Your task to perform on an android device: See recent photos Image 0: 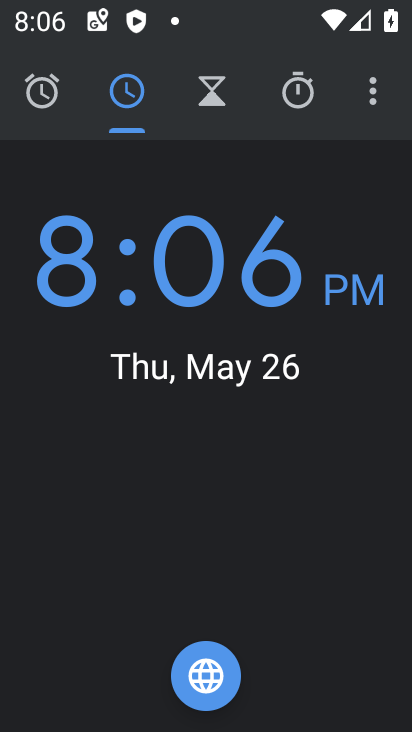
Step 0: press home button
Your task to perform on an android device: See recent photos Image 1: 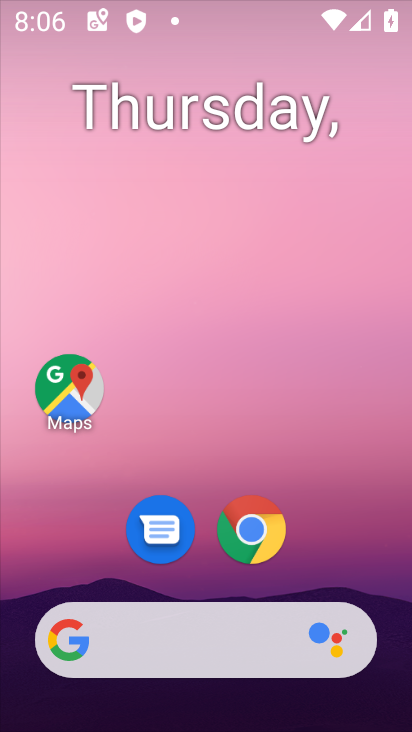
Step 1: drag from (223, 716) to (200, 103)
Your task to perform on an android device: See recent photos Image 2: 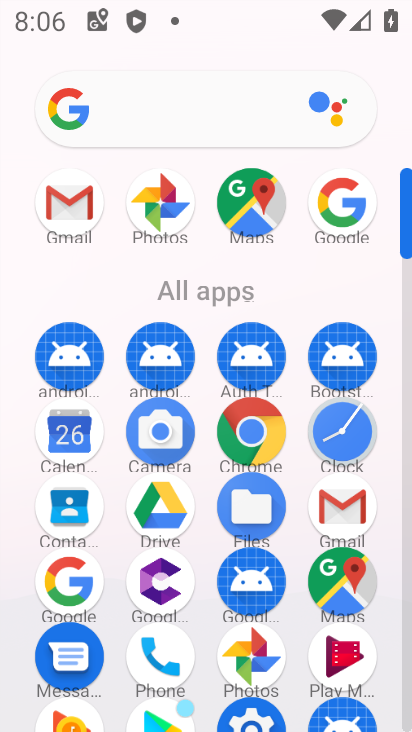
Step 2: click (250, 655)
Your task to perform on an android device: See recent photos Image 3: 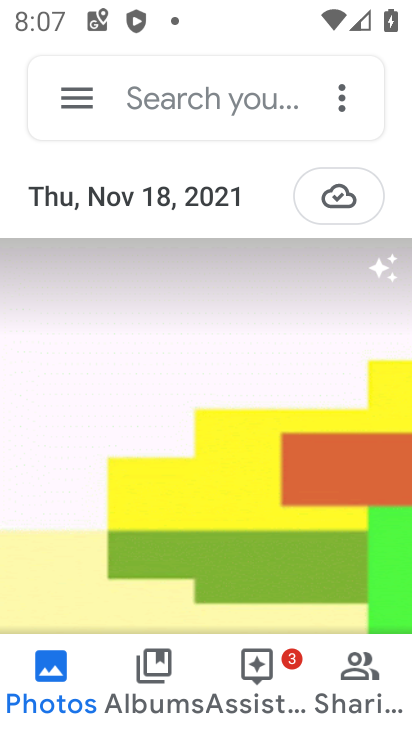
Step 3: click (203, 481)
Your task to perform on an android device: See recent photos Image 4: 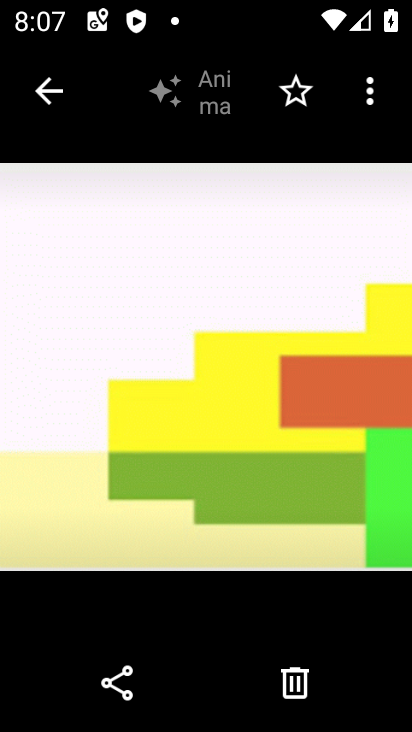
Step 4: task complete